Your task to perform on an android device: open a new tab in the chrome app Image 0: 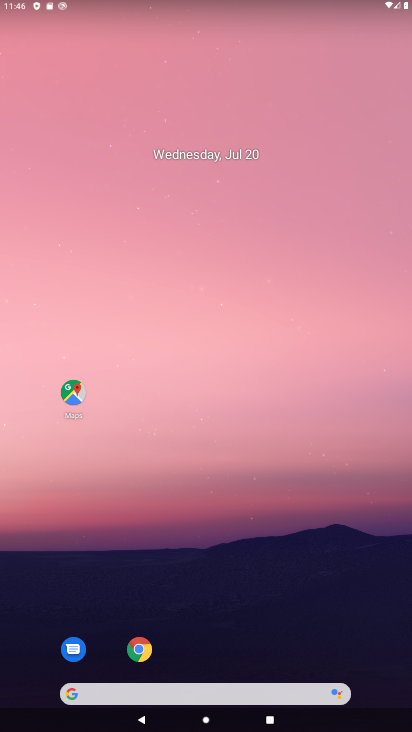
Step 0: click (126, 649)
Your task to perform on an android device: open a new tab in the chrome app Image 1: 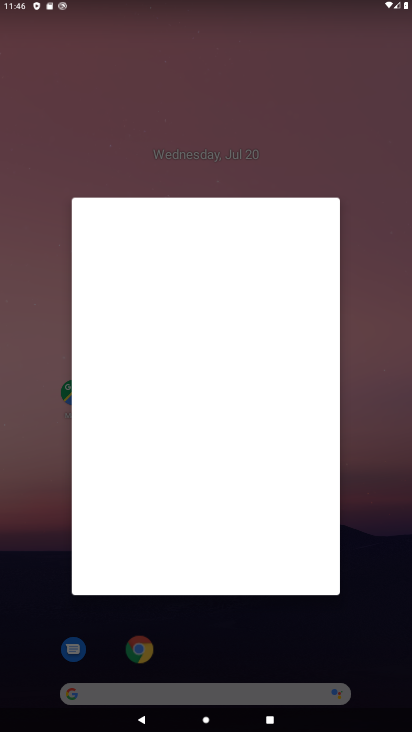
Step 1: task complete